Your task to perform on an android device: Go to Google maps Image 0: 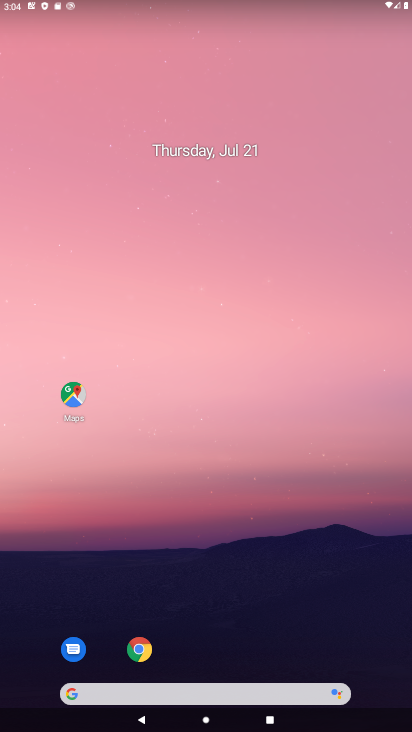
Step 0: click (288, 654)
Your task to perform on an android device: Go to Google maps Image 1: 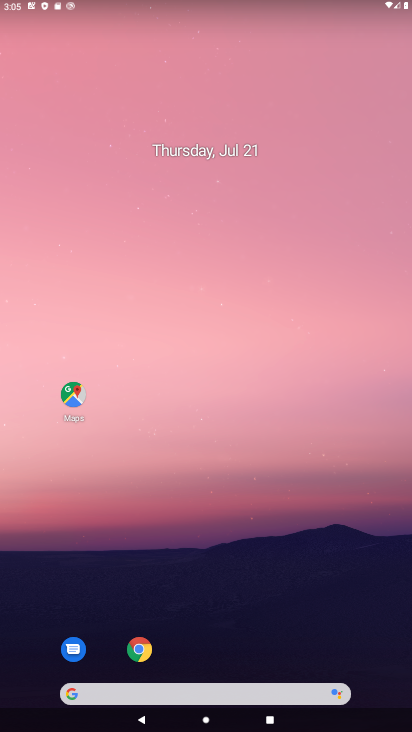
Step 1: click (81, 416)
Your task to perform on an android device: Go to Google maps Image 2: 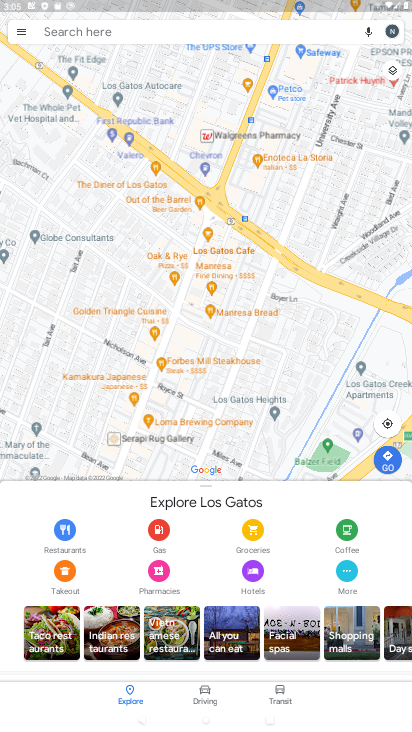
Step 2: task complete